Your task to perform on an android device: turn off improve location accuracy Image 0: 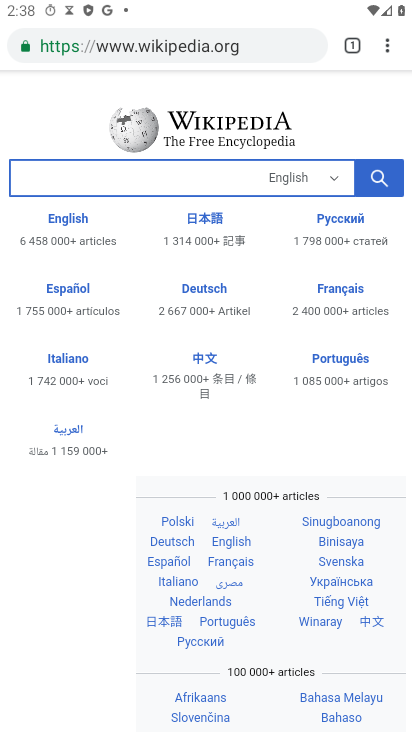
Step 0: press home button
Your task to perform on an android device: turn off improve location accuracy Image 1: 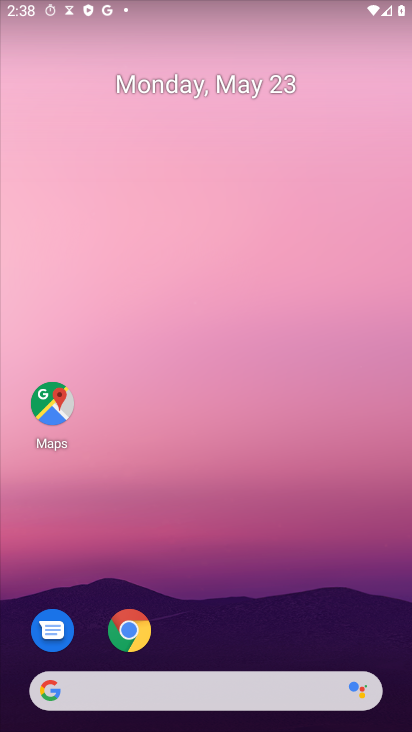
Step 1: drag from (344, 579) to (302, 75)
Your task to perform on an android device: turn off improve location accuracy Image 2: 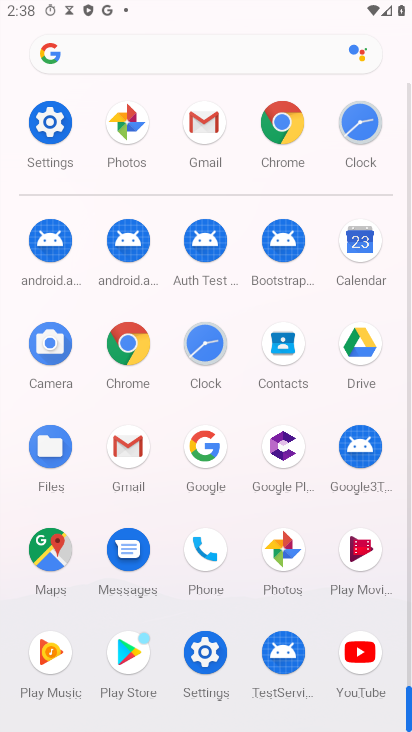
Step 2: click (44, 127)
Your task to perform on an android device: turn off improve location accuracy Image 3: 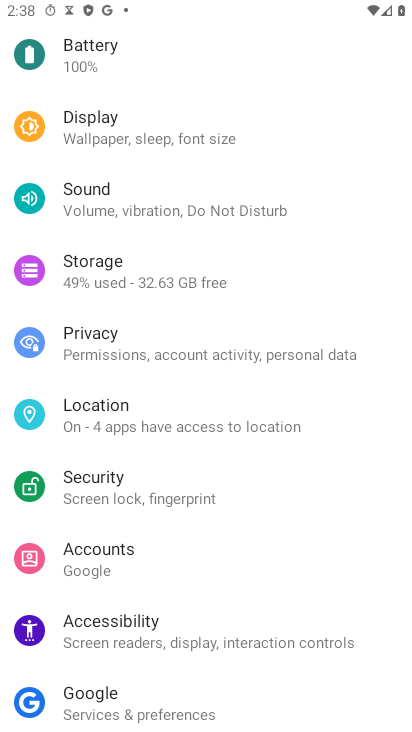
Step 3: click (76, 413)
Your task to perform on an android device: turn off improve location accuracy Image 4: 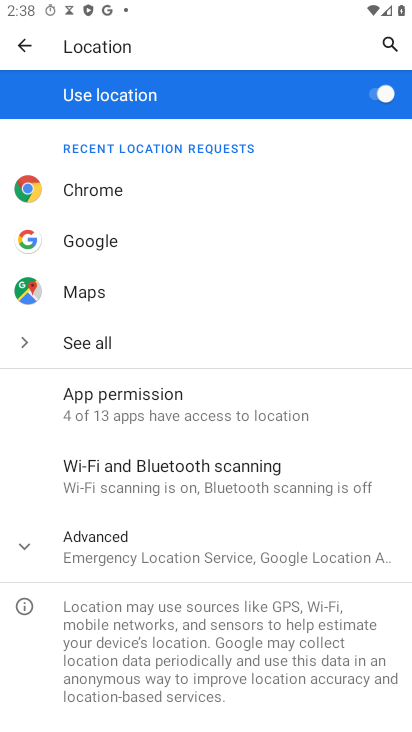
Step 4: click (109, 544)
Your task to perform on an android device: turn off improve location accuracy Image 5: 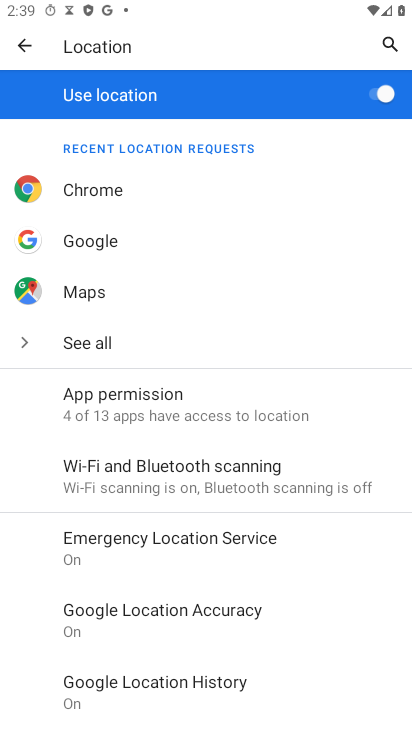
Step 5: click (145, 624)
Your task to perform on an android device: turn off improve location accuracy Image 6: 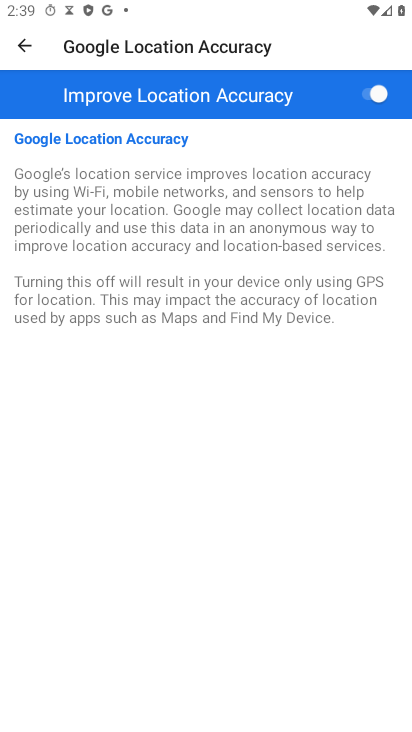
Step 6: click (370, 91)
Your task to perform on an android device: turn off improve location accuracy Image 7: 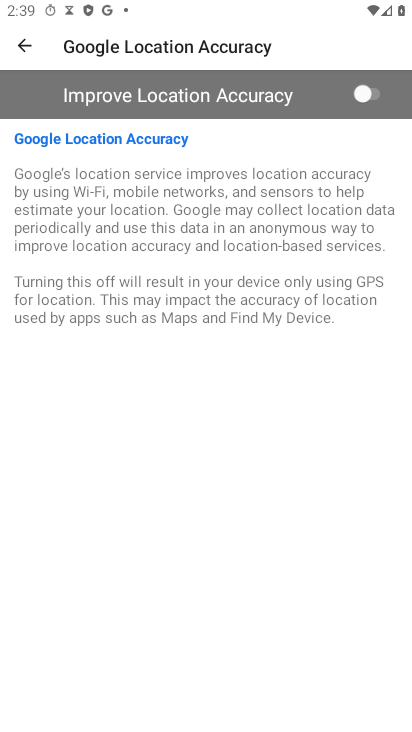
Step 7: task complete